Your task to perform on an android device: add a contact Image 0: 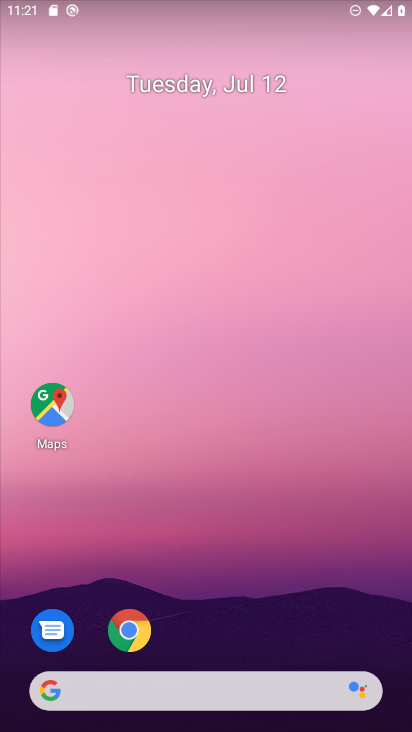
Step 0: click (265, 95)
Your task to perform on an android device: add a contact Image 1: 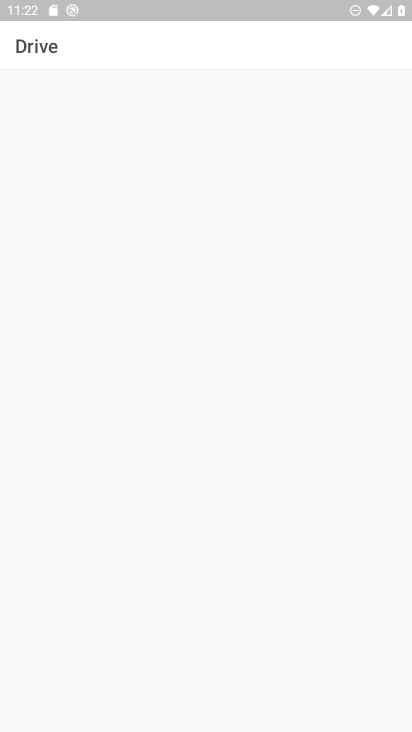
Step 1: press home button
Your task to perform on an android device: add a contact Image 2: 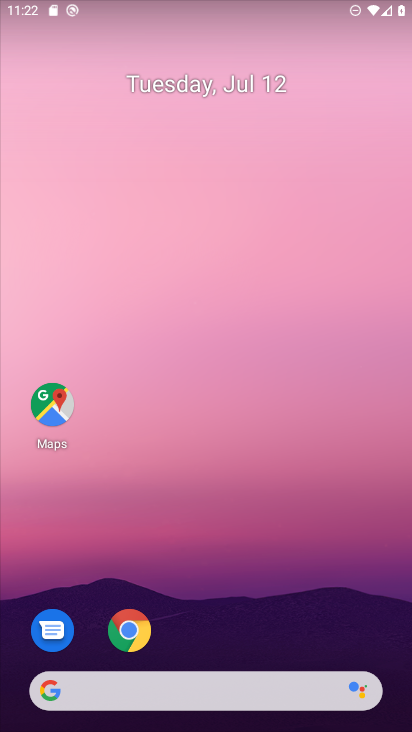
Step 2: drag from (380, 583) to (305, 51)
Your task to perform on an android device: add a contact Image 3: 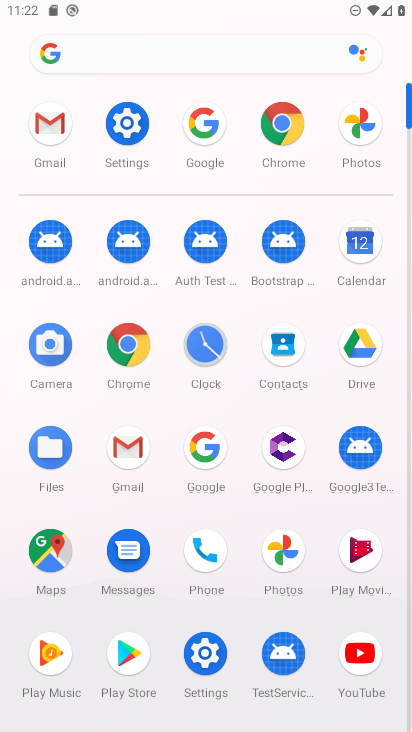
Step 3: click (278, 346)
Your task to perform on an android device: add a contact Image 4: 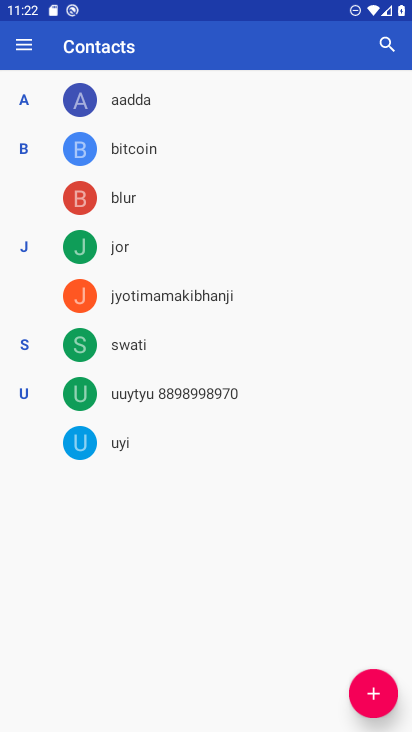
Step 4: click (370, 688)
Your task to perform on an android device: add a contact Image 5: 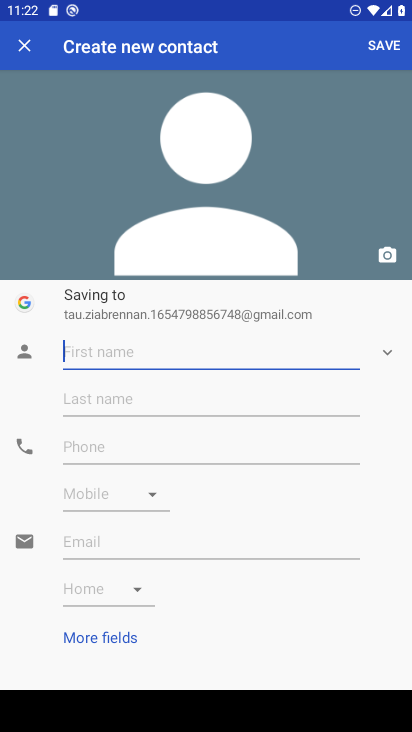
Step 5: click (260, 349)
Your task to perform on an android device: add a contact Image 6: 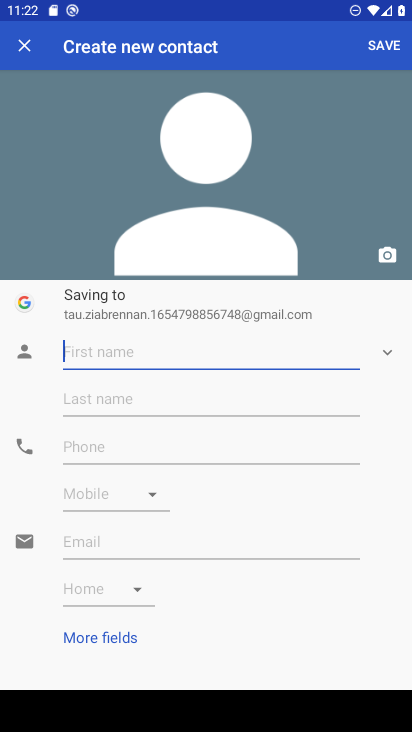
Step 6: type "ulat"
Your task to perform on an android device: add a contact Image 7: 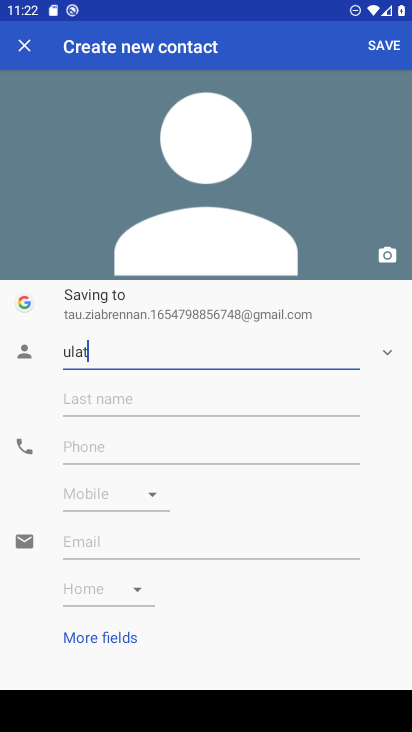
Step 7: click (394, 46)
Your task to perform on an android device: add a contact Image 8: 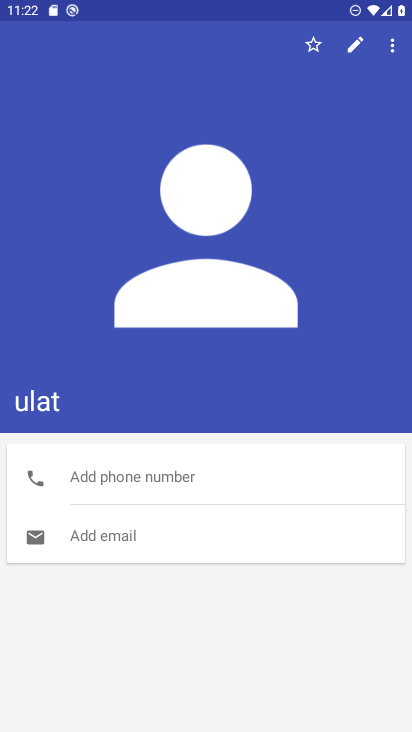
Step 8: task complete